Your task to perform on an android device: Open my contact list Image 0: 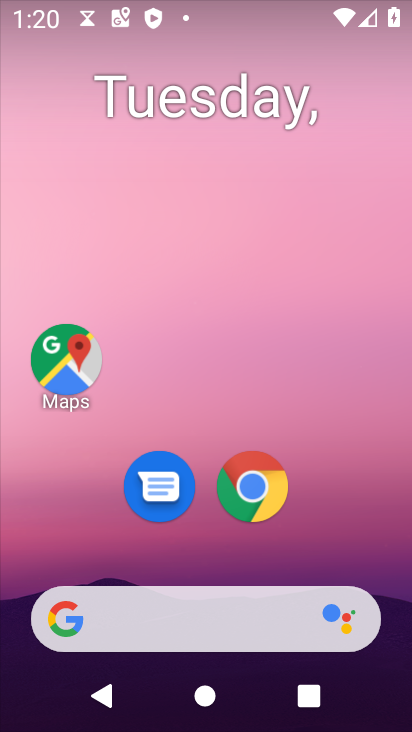
Step 0: drag from (342, 553) to (285, 119)
Your task to perform on an android device: Open my contact list Image 1: 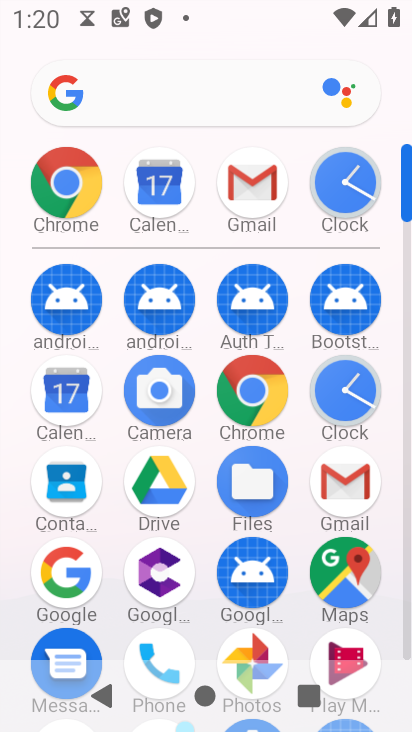
Step 1: click (72, 493)
Your task to perform on an android device: Open my contact list Image 2: 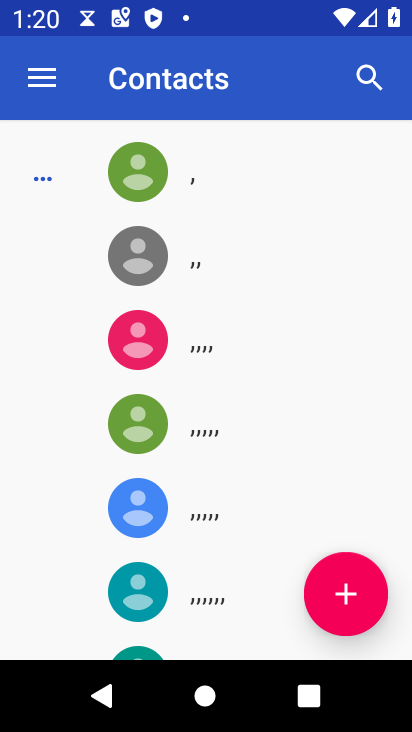
Step 2: task complete